Your task to perform on an android device: toggle improve location accuracy Image 0: 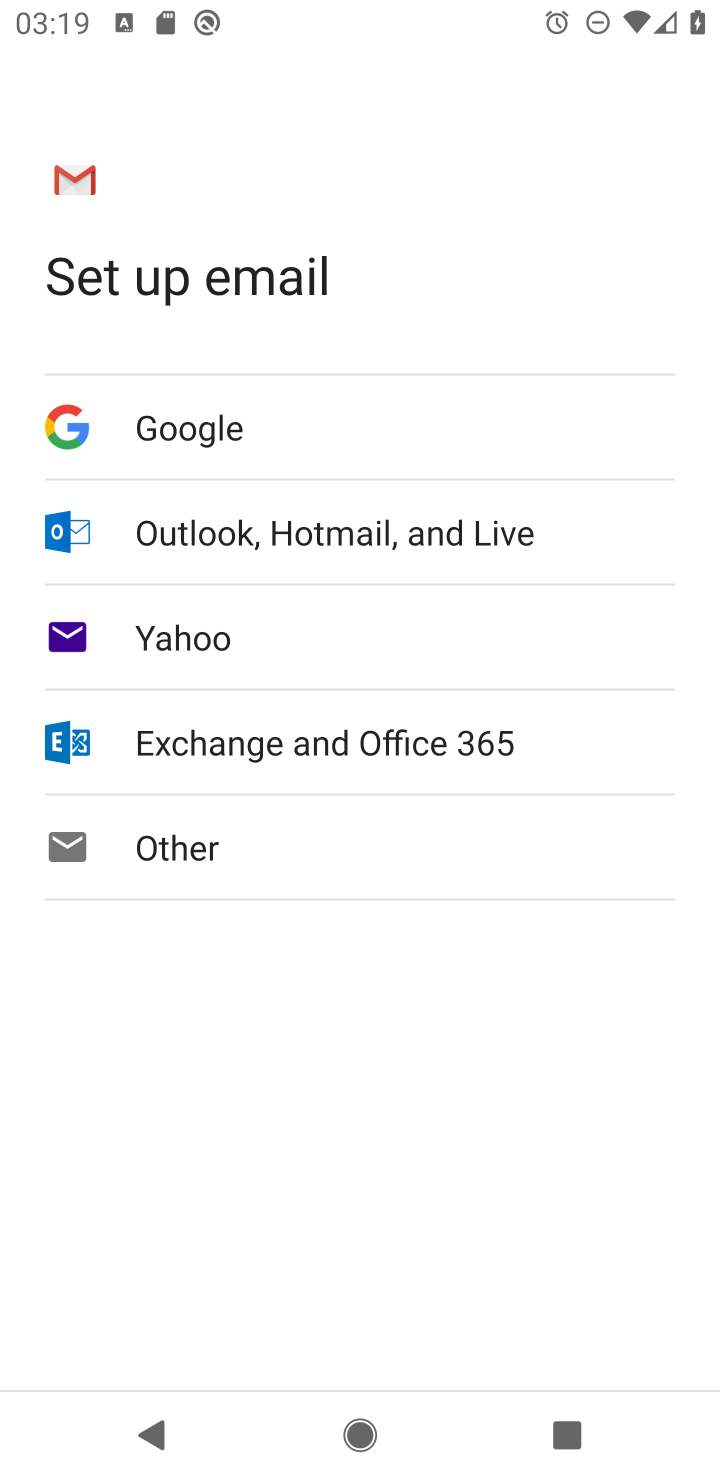
Step 0: press home button
Your task to perform on an android device: toggle improve location accuracy Image 1: 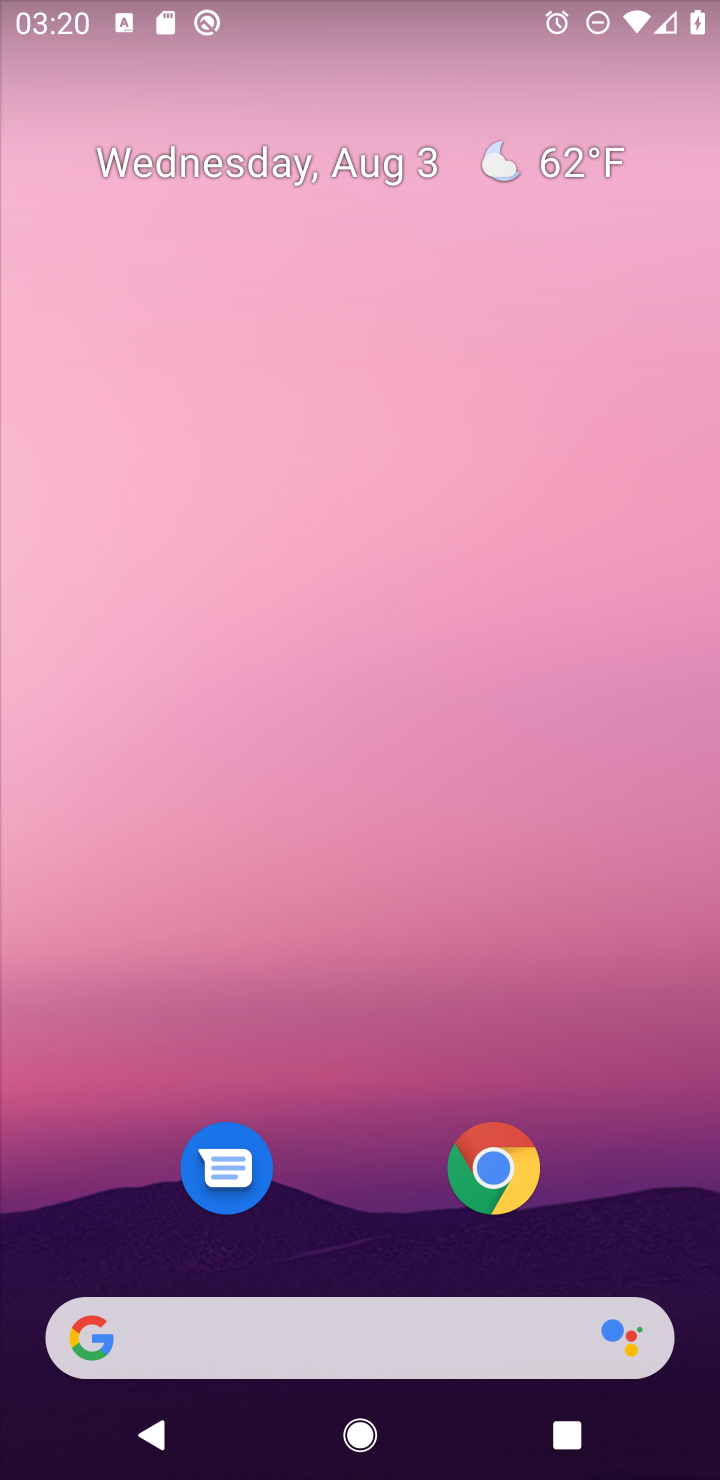
Step 1: drag from (678, 1257) to (560, 327)
Your task to perform on an android device: toggle improve location accuracy Image 2: 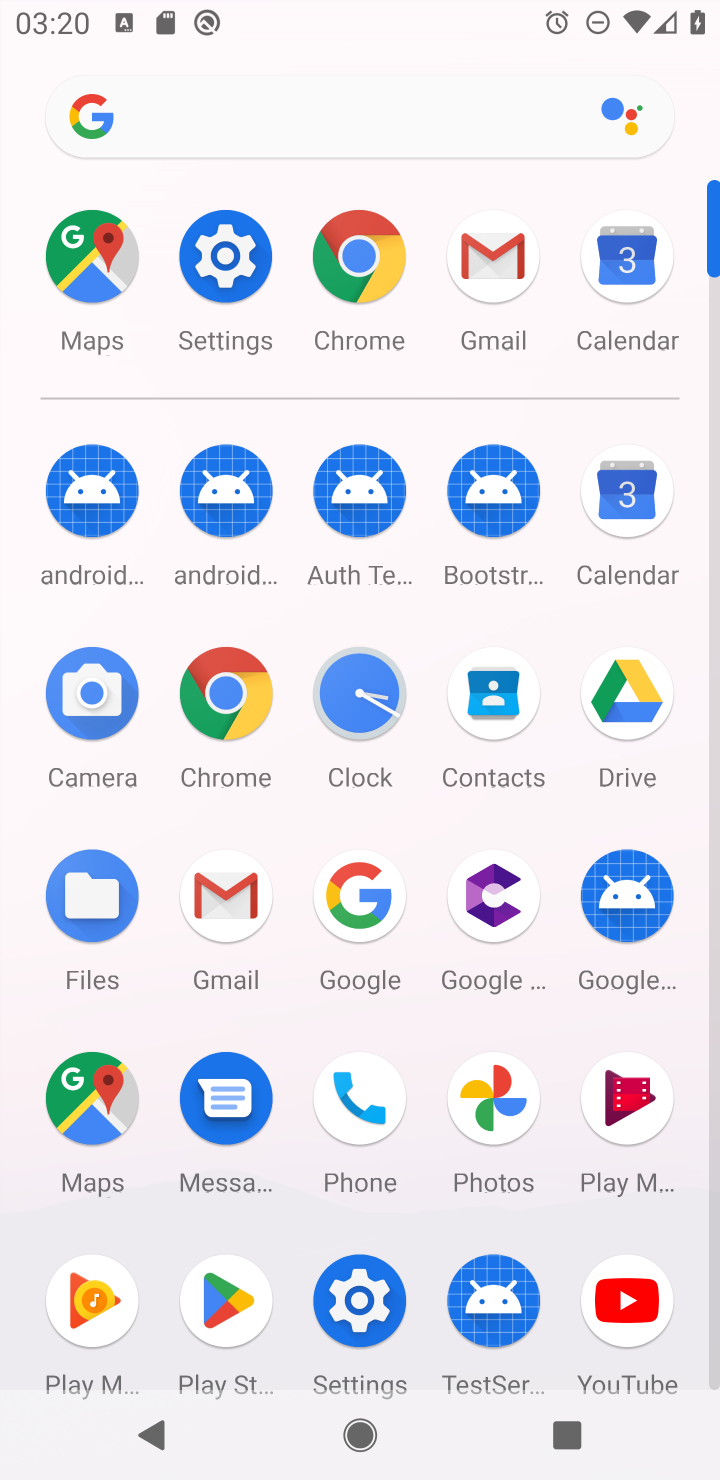
Step 2: click (360, 1307)
Your task to perform on an android device: toggle improve location accuracy Image 3: 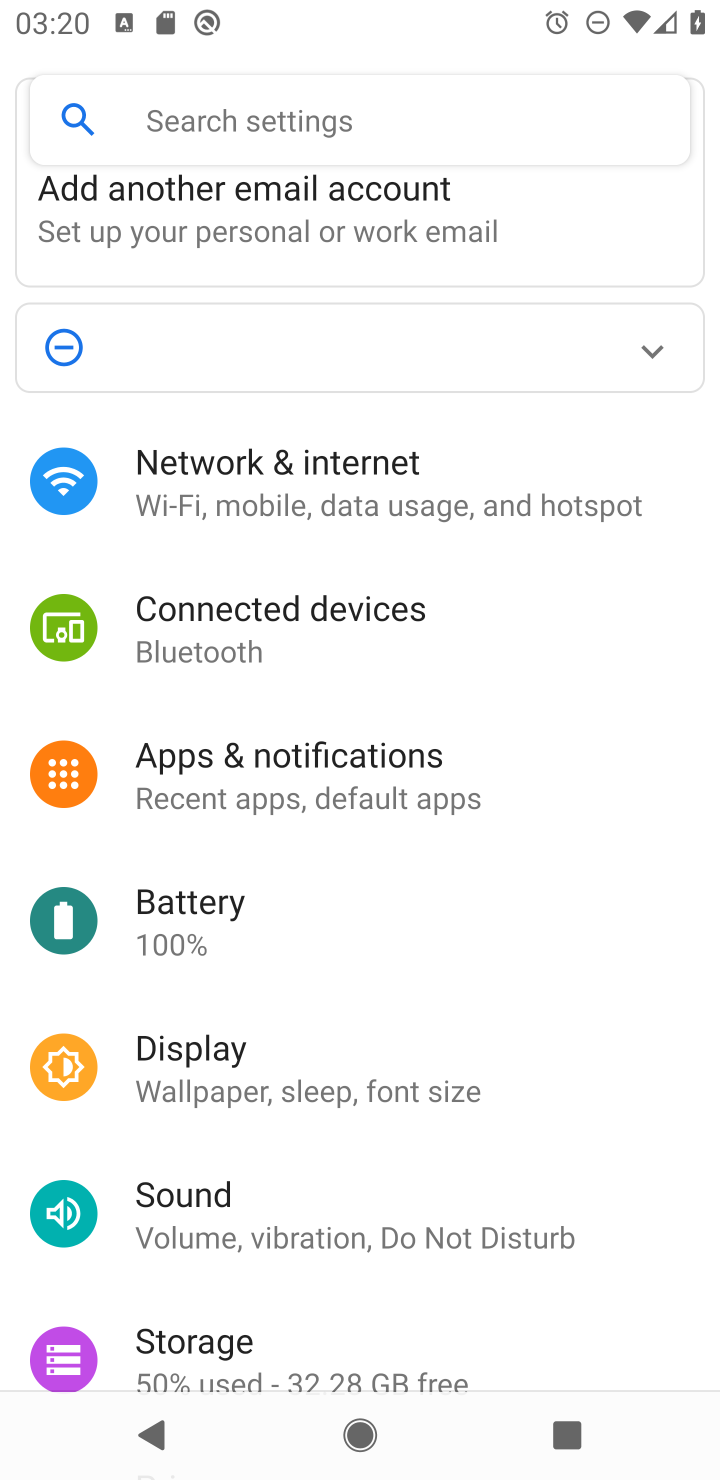
Step 3: drag from (608, 1262) to (522, 619)
Your task to perform on an android device: toggle improve location accuracy Image 4: 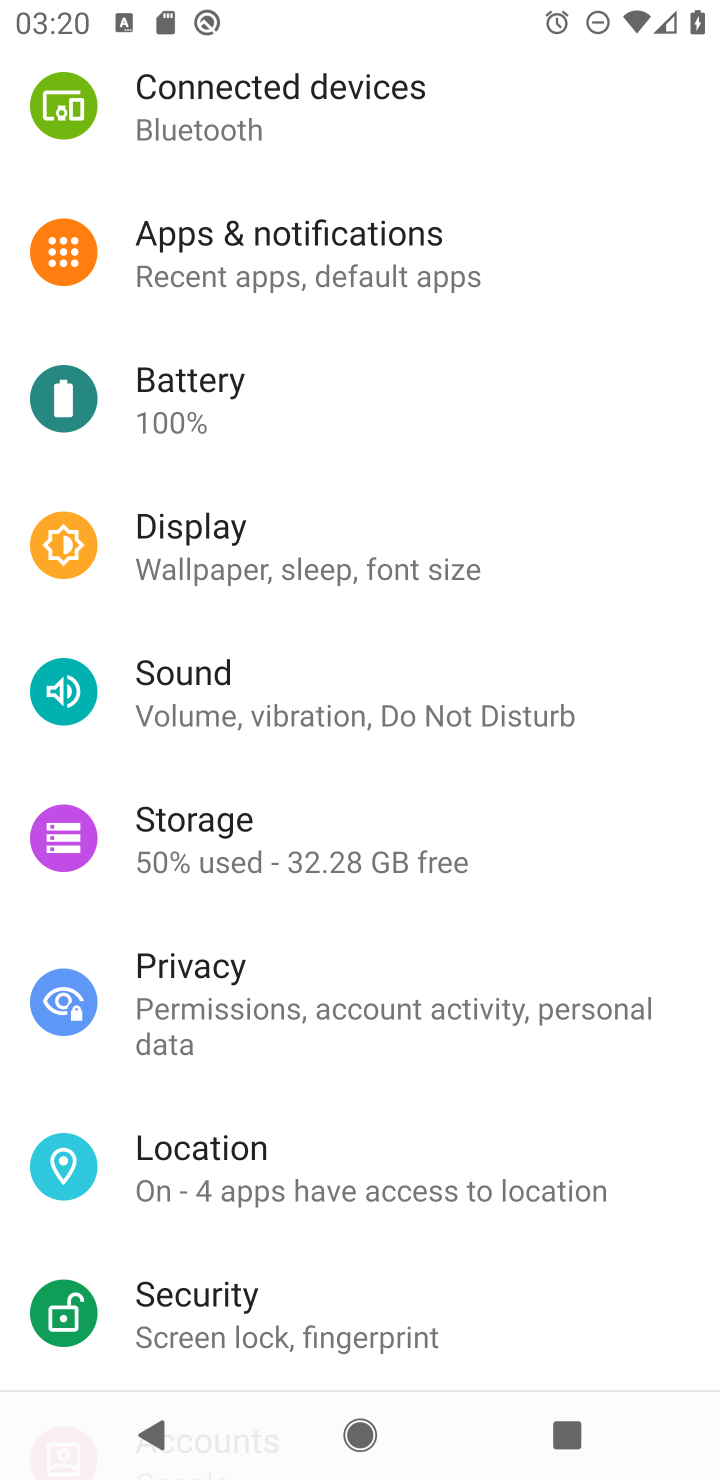
Step 4: click (224, 1186)
Your task to perform on an android device: toggle improve location accuracy Image 5: 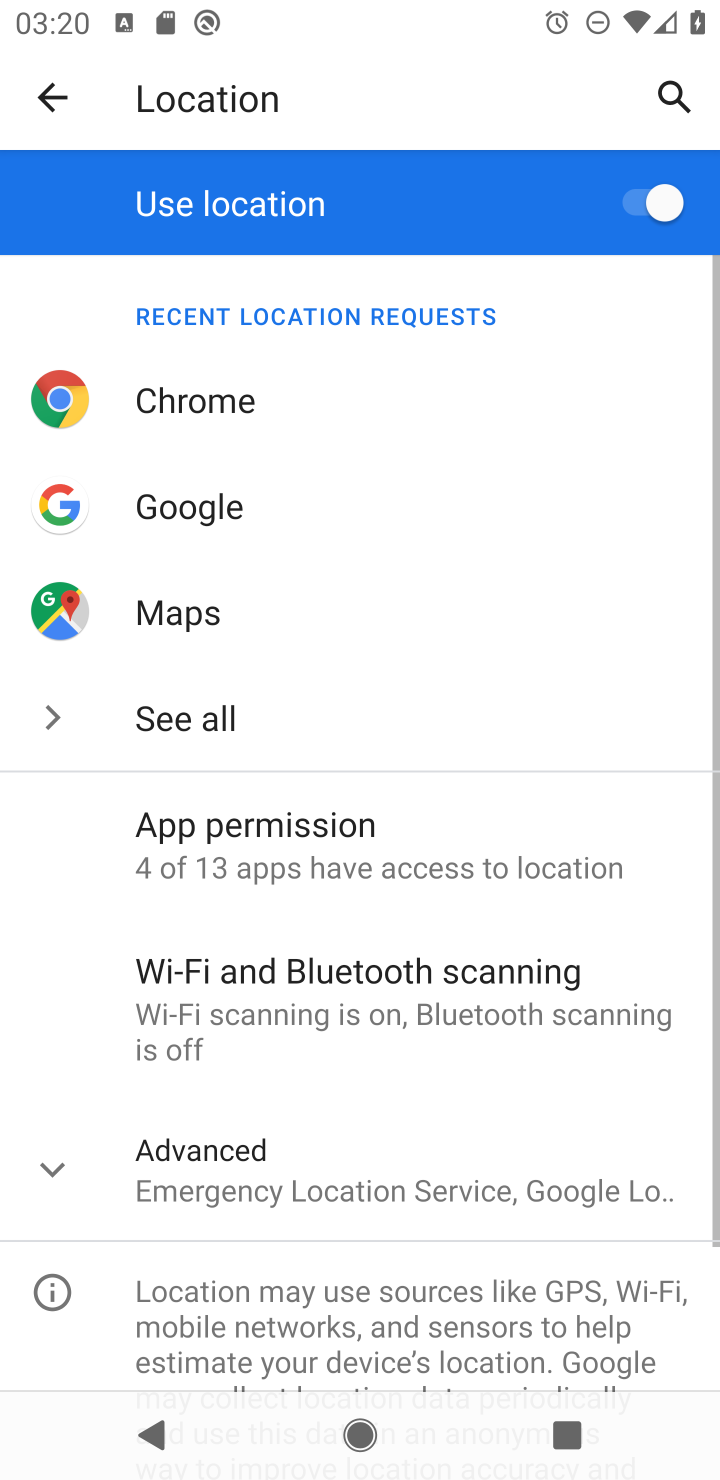
Step 5: click (64, 1182)
Your task to perform on an android device: toggle improve location accuracy Image 6: 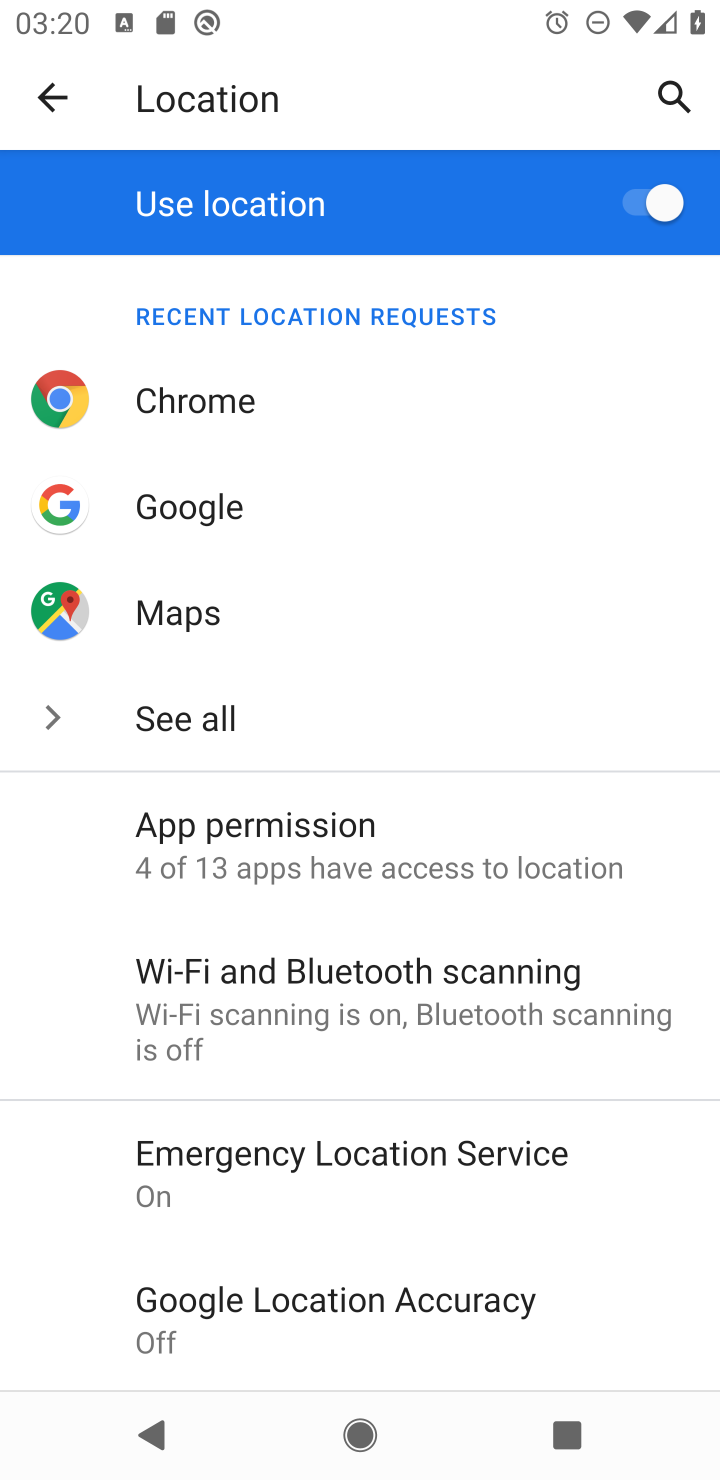
Step 6: drag from (427, 1278) to (384, 785)
Your task to perform on an android device: toggle improve location accuracy Image 7: 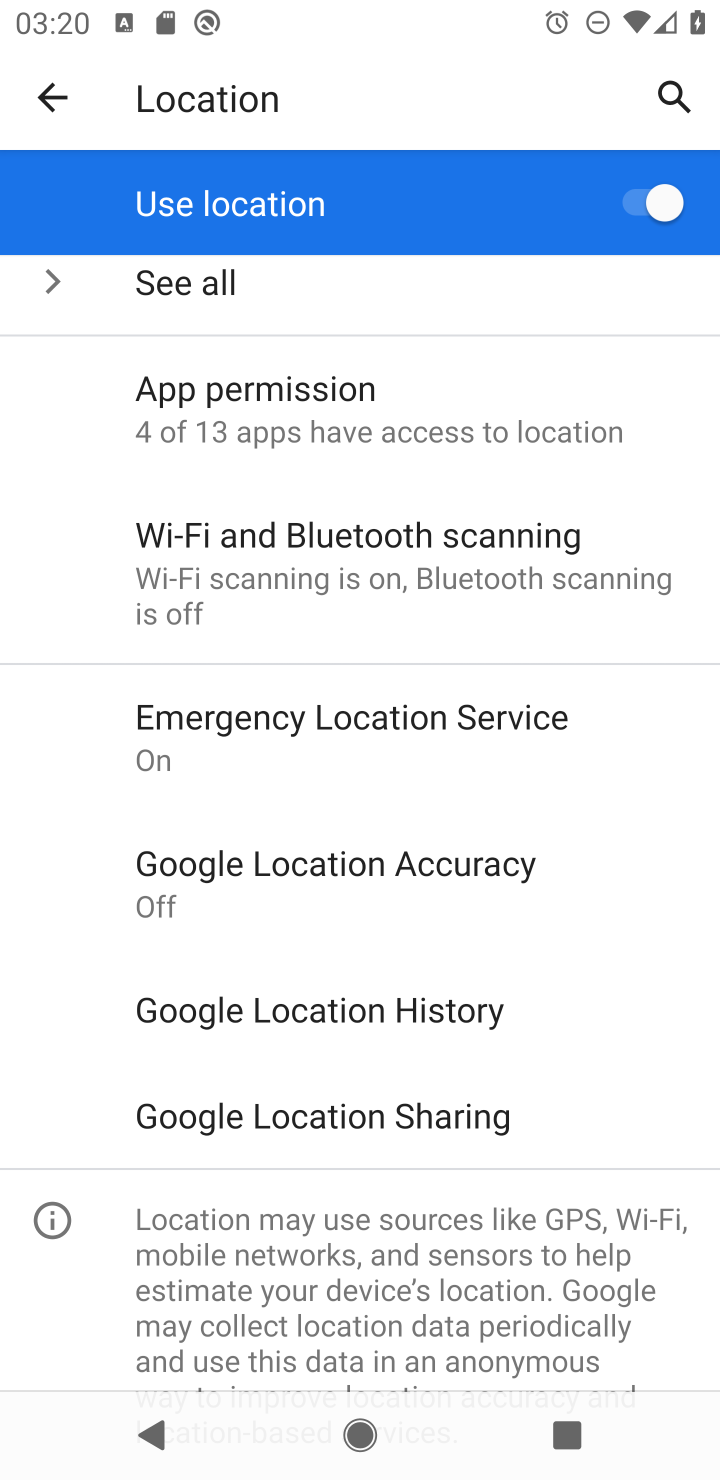
Step 7: click (241, 878)
Your task to perform on an android device: toggle improve location accuracy Image 8: 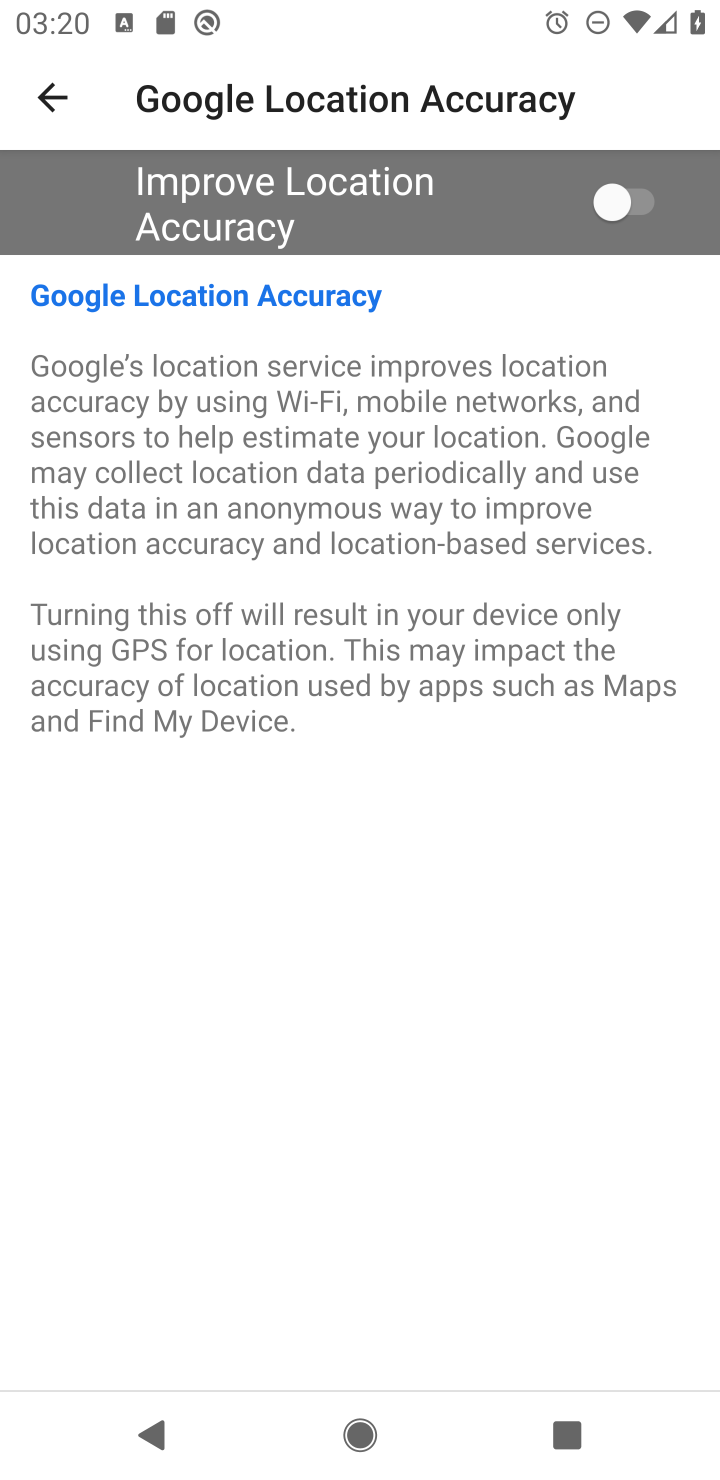
Step 8: click (644, 207)
Your task to perform on an android device: toggle improve location accuracy Image 9: 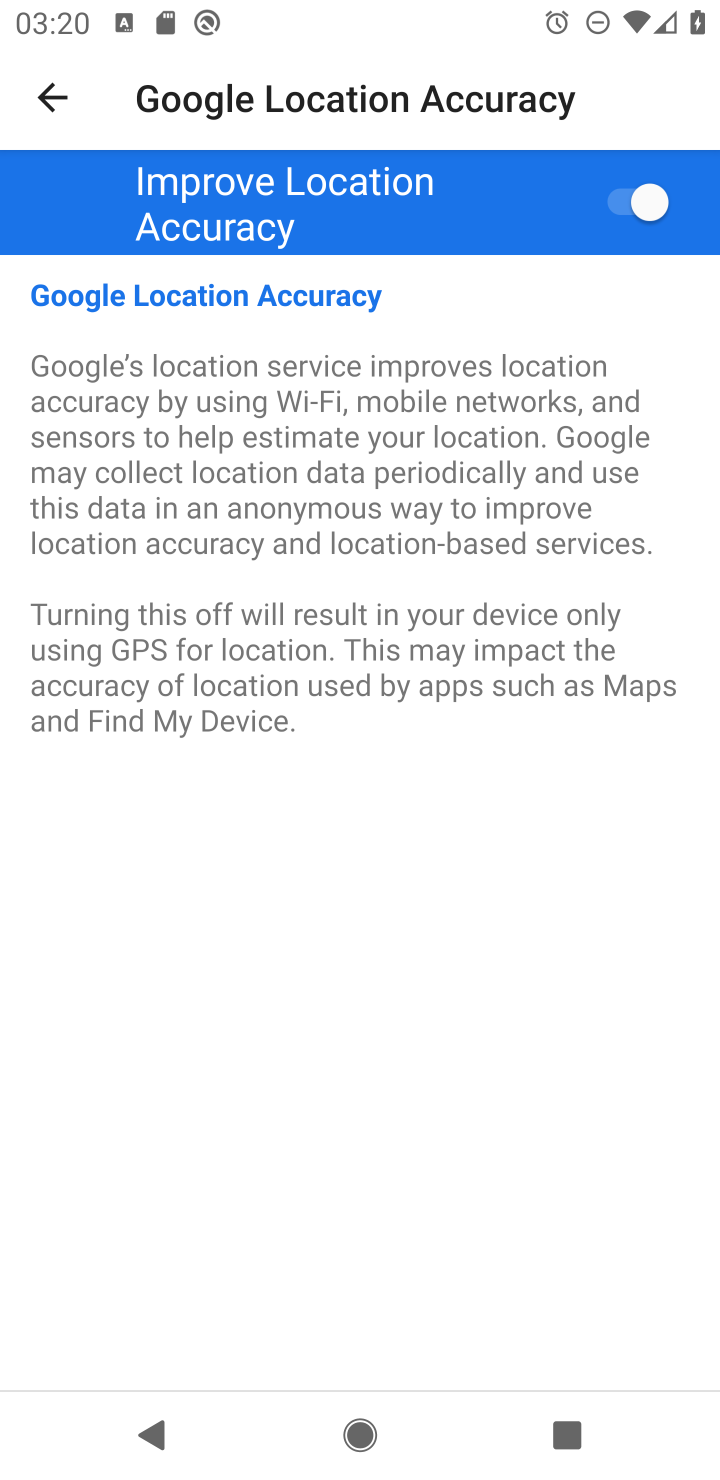
Step 9: task complete